Your task to perform on an android device: see creations saved in the google photos Image 0: 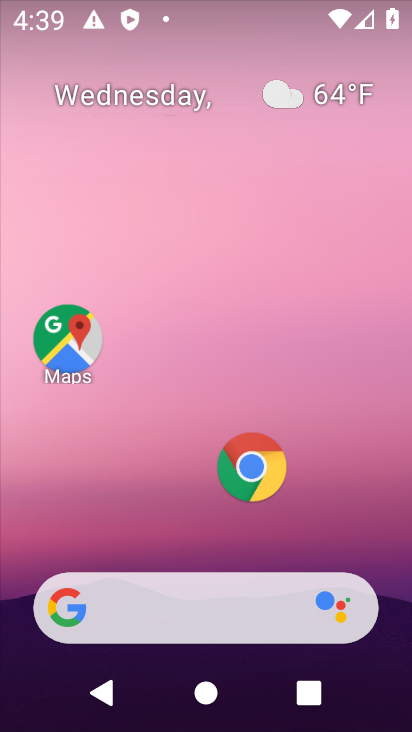
Step 0: drag from (171, 496) to (184, 4)
Your task to perform on an android device: see creations saved in the google photos Image 1: 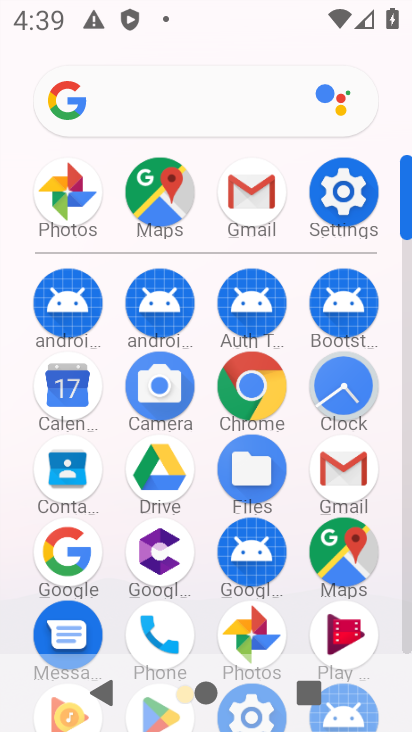
Step 1: click (244, 628)
Your task to perform on an android device: see creations saved in the google photos Image 2: 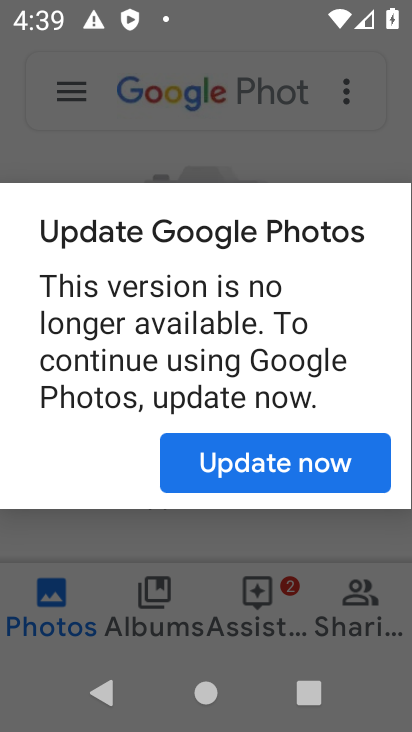
Step 2: task complete